Your task to perform on an android device: delete the emails in spam in the gmail app Image 0: 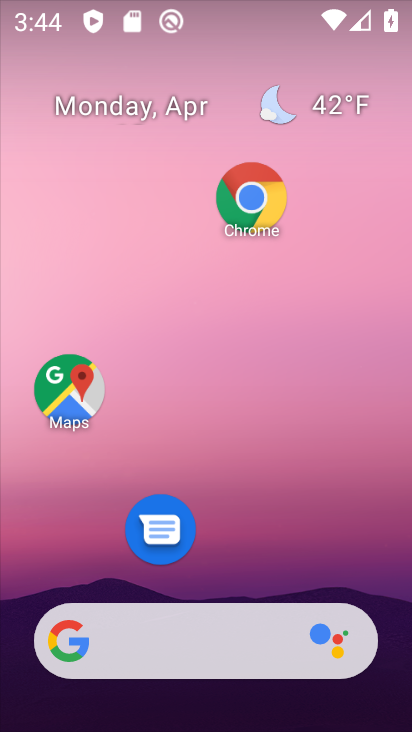
Step 0: drag from (233, 542) to (218, 213)
Your task to perform on an android device: delete the emails in spam in the gmail app Image 1: 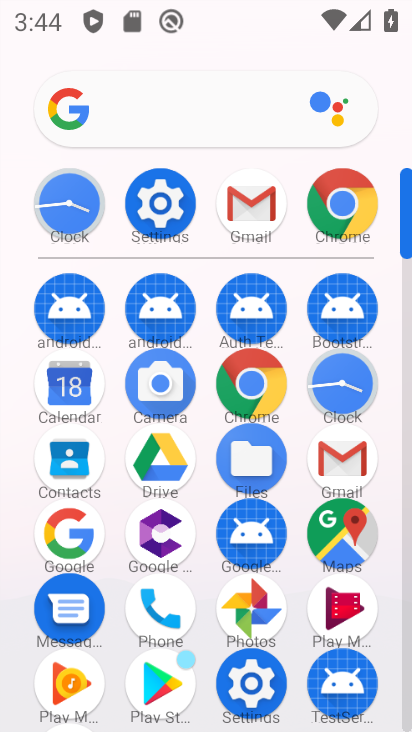
Step 1: click (256, 203)
Your task to perform on an android device: delete the emails in spam in the gmail app Image 2: 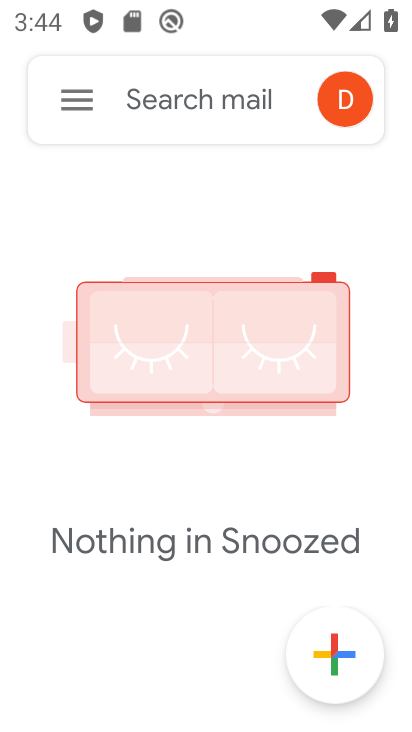
Step 2: click (81, 102)
Your task to perform on an android device: delete the emails in spam in the gmail app Image 3: 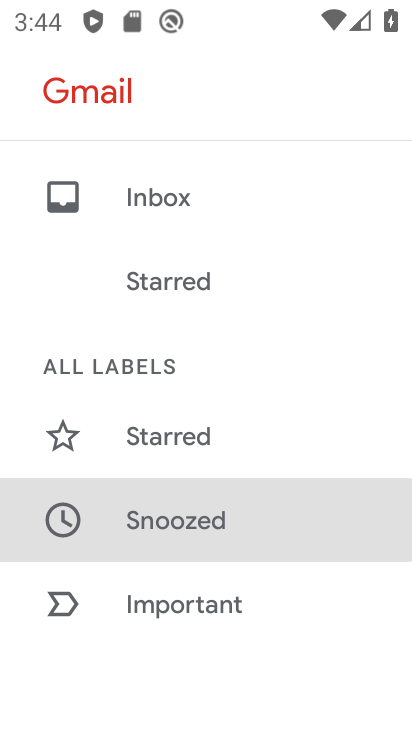
Step 3: drag from (264, 600) to (256, 260)
Your task to perform on an android device: delete the emails in spam in the gmail app Image 4: 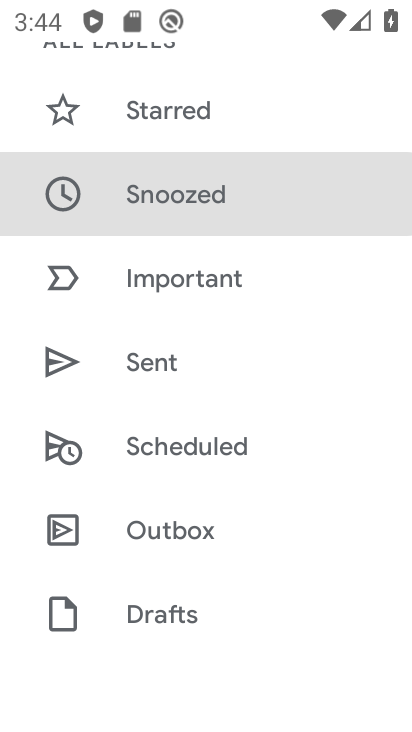
Step 4: drag from (229, 460) to (229, 311)
Your task to perform on an android device: delete the emails in spam in the gmail app Image 5: 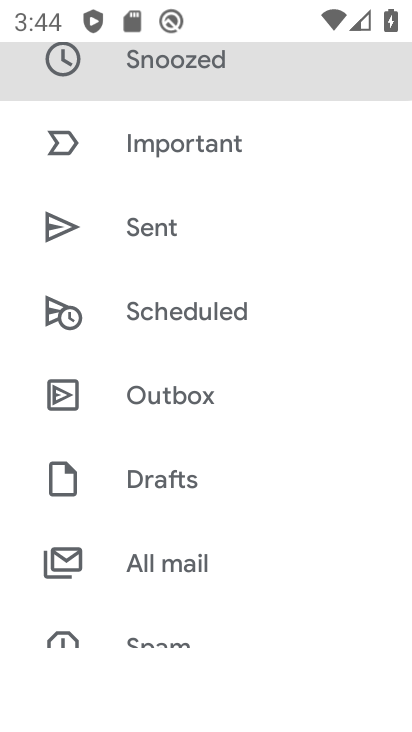
Step 5: click (195, 550)
Your task to perform on an android device: delete the emails in spam in the gmail app Image 6: 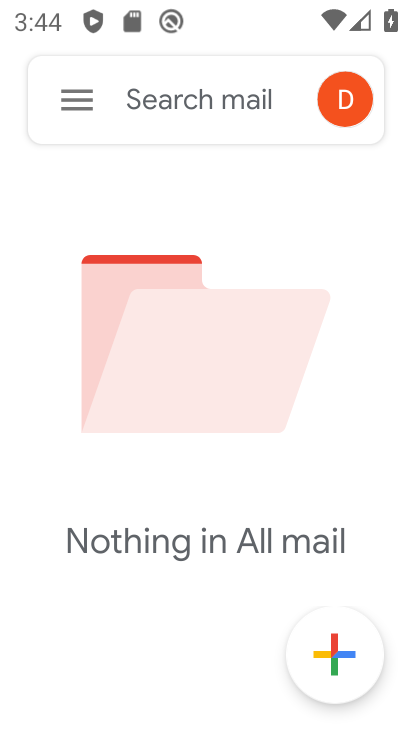
Step 6: task complete